Your task to perform on an android device: Open Youtube and go to "Your channel" Image 0: 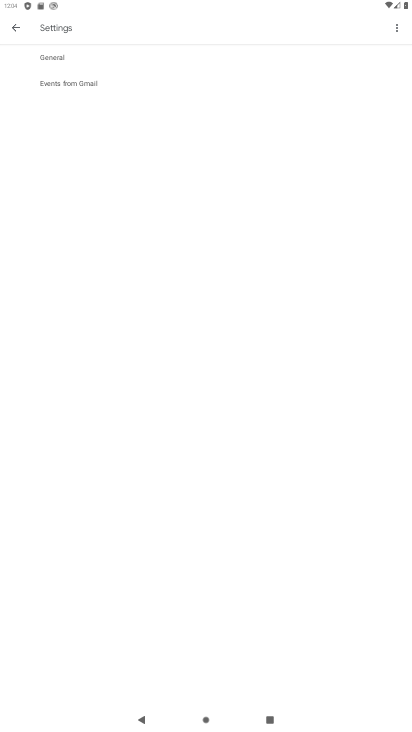
Step 0: press home button
Your task to perform on an android device: Open Youtube and go to "Your channel" Image 1: 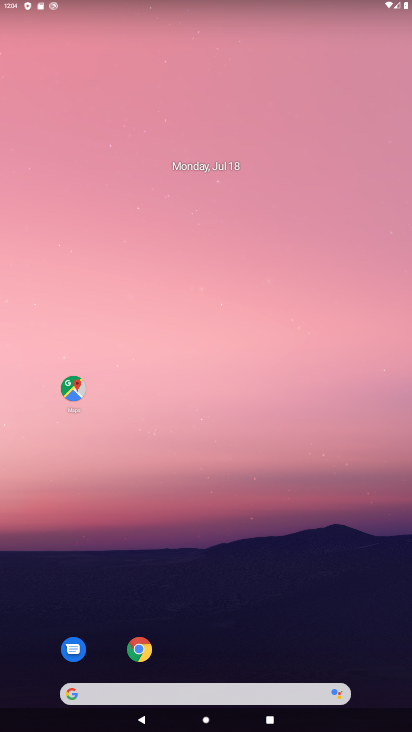
Step 1: drag from (185, 481) to (185, 122)
Your task to perform on an android device: Open Youtube and go to "Your channel" Image 2: 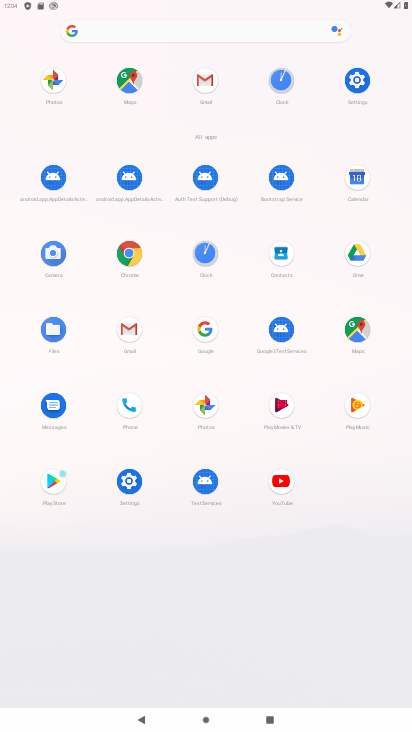
Step 2: click (282, 477)
Your task to perform on an android device: Open Youtube and go to "Your channel" Image 3: 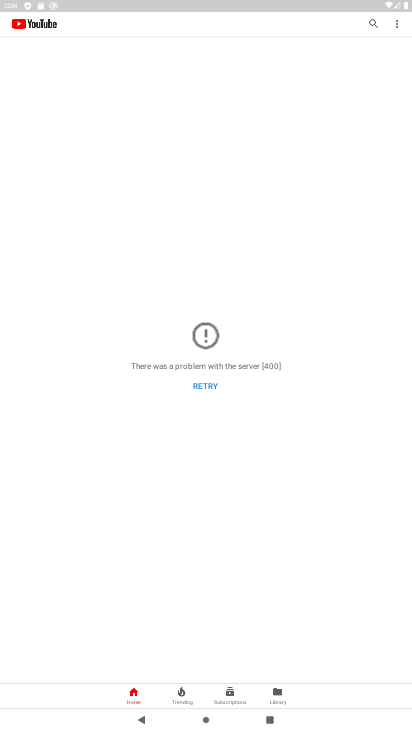
Step 3: task complete